Your task to perform on an android device: open chrome and create a bookmark for the current page Image 0: 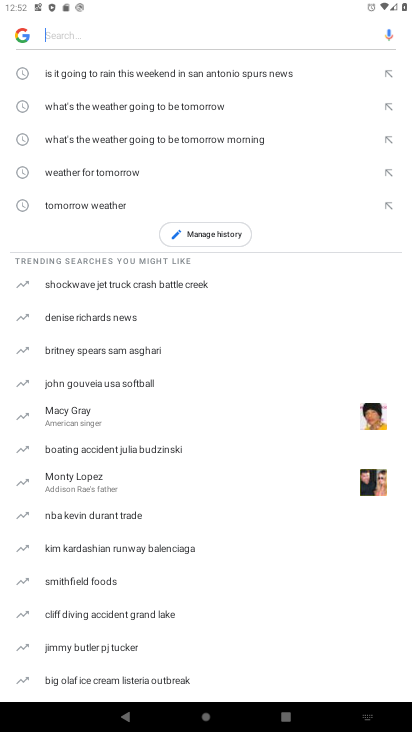
Step 0: press home button
Your task to perform on an android device: open chrome and create a bookmark for the current page Image 1: 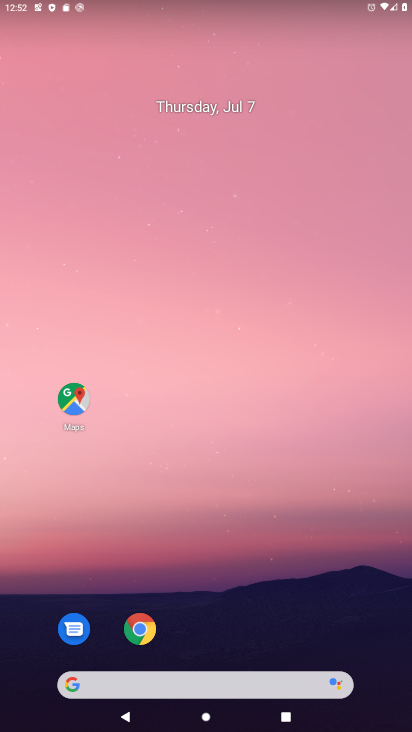
Step 1: click (142, 628)
Your task to perform on an android device: open chrome and create a bookmark for the current page Image 2: 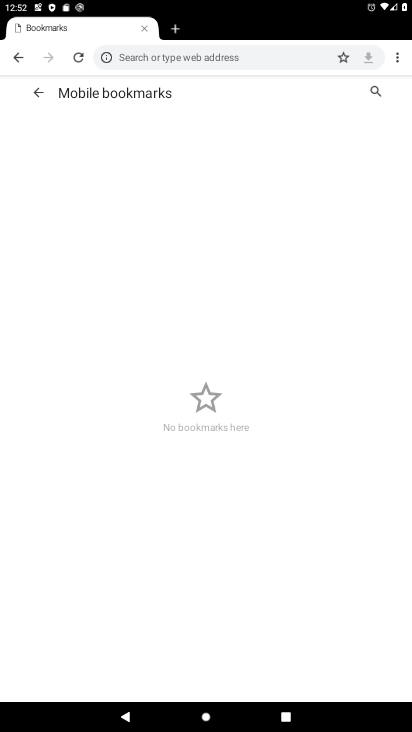
Step 2: click (345, 57)
Your task to perform on an android device: open chrome and create a bookmark for the current page Image 3: 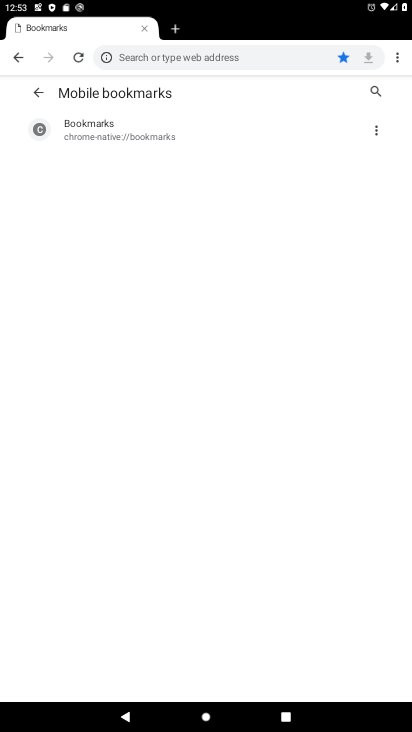
Step 3: click (185, 137)
Your task to perform on an android device: open chrome and create a bookmark for the current page Image 4: 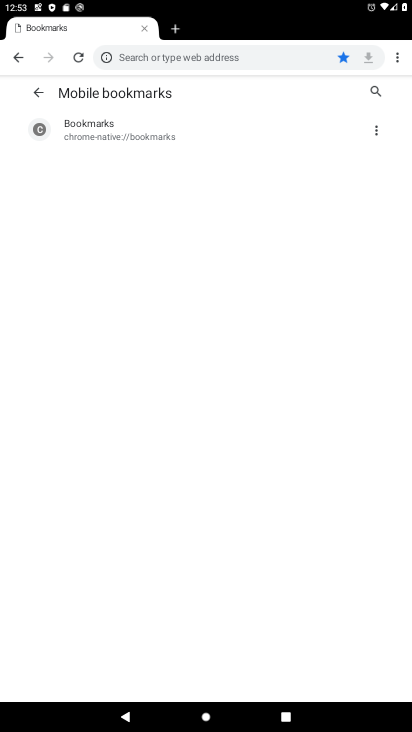
Step 4: click (140, 136)
Your task to perform on an android device: open chrome and create a bookmark for the current page Image 5: 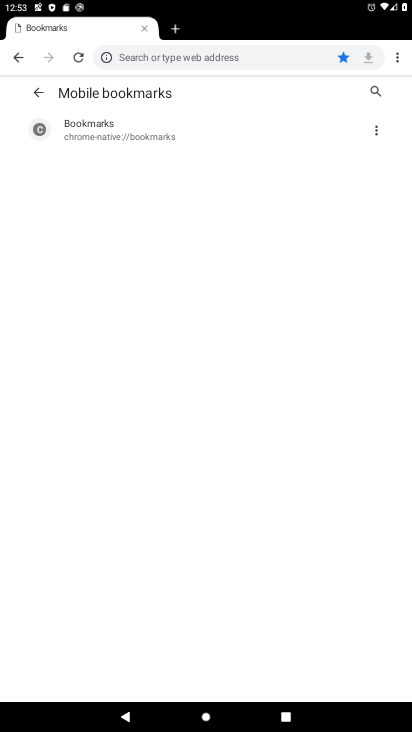
Step 5: task complete